Your task to perform on an android device: snooze an email in the gmail app Image 0: 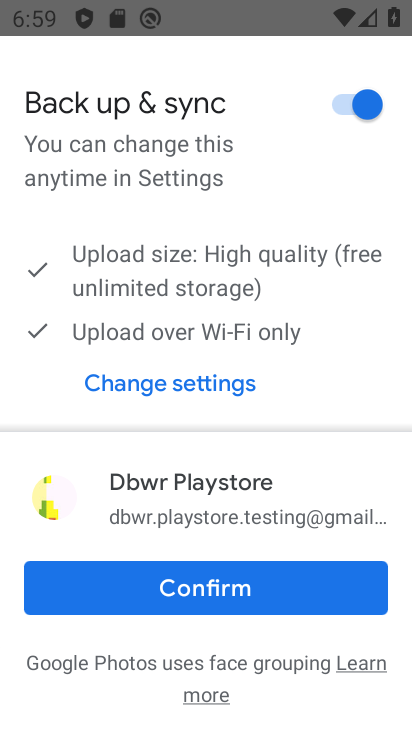
Step 0: press home button
Your task to perform on an android device: snooze an email in the gmail app Image 1: 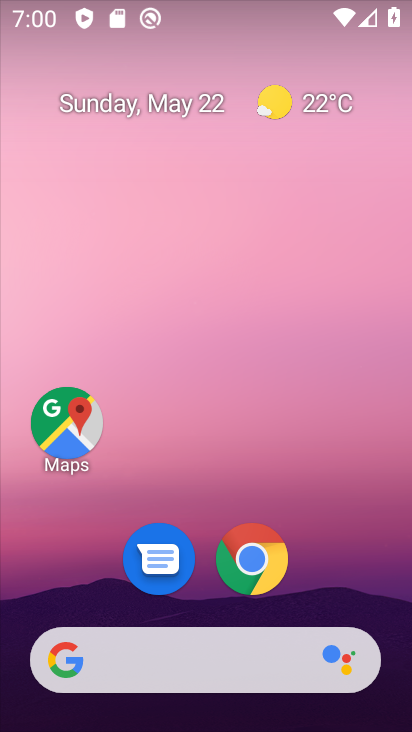
Step 1: drag from (283, 708) to (191, 112)
Your task to perform on an android device: snooze an email in the gmail app Image 2: 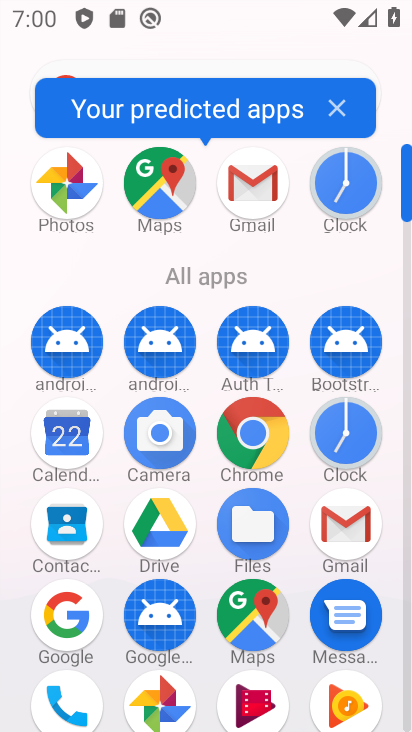
Step 2: click (241, 215)
Your task to perform on an android device: snooze an email in the gmail app Image 3: 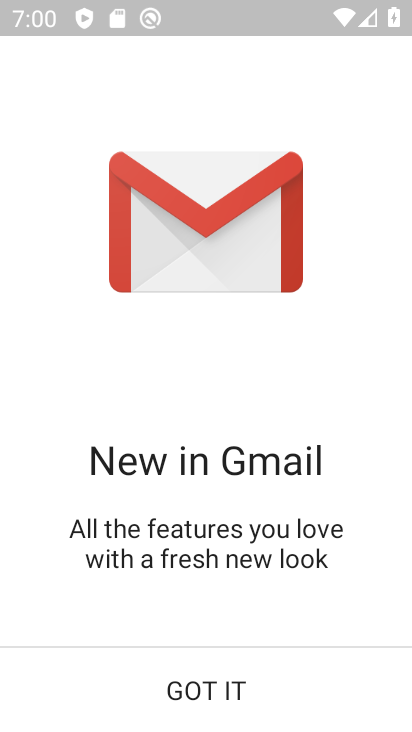
Step 3: click (183, 690)
Your task to perform on an android device: snooze an email in the gmail app Image 4: 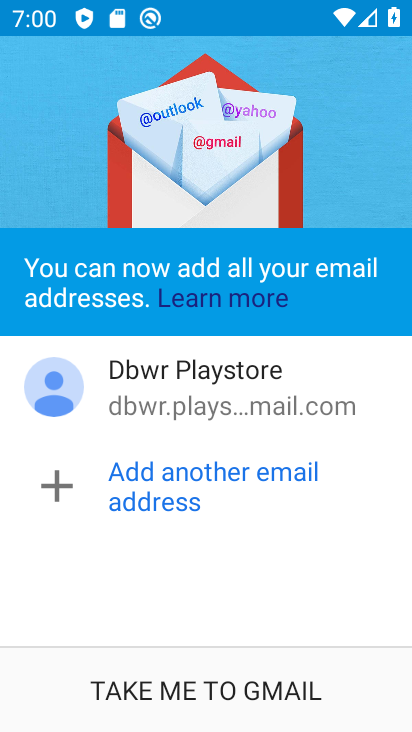
Step 4: click (239, 669)
Your task to perform on an android device: snooze an email in the gmail app Image 5: 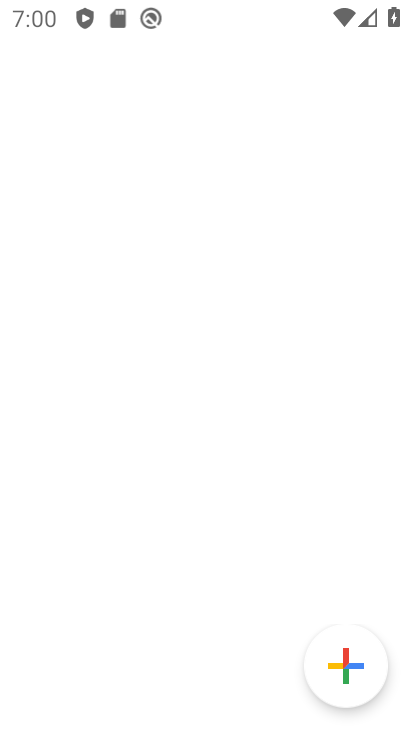
Step 5: click (287, 671)
Your task to perform on an android device: snooze an email in the gmail app Image 6: 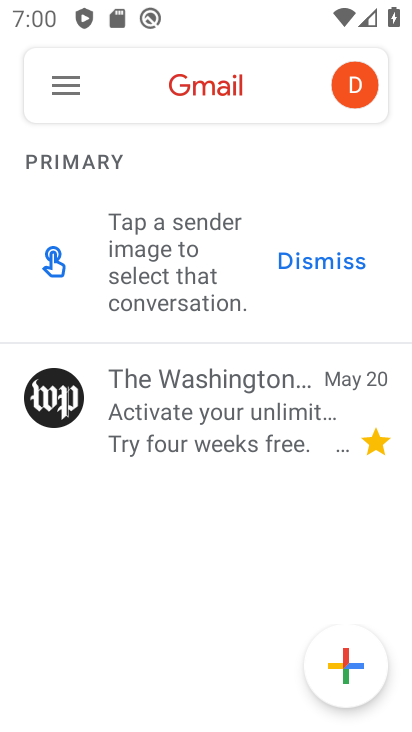
Step 6: click (54, 99)
Your task to perform on an android device: snooze an email in the gmail app Image 7: 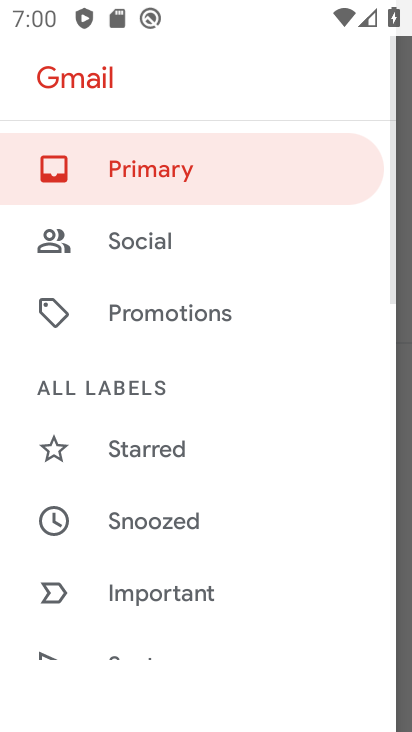
Step 7: click (175, 516)
Your task to perform on an android device: snooze an email in the gmail app Image 8: 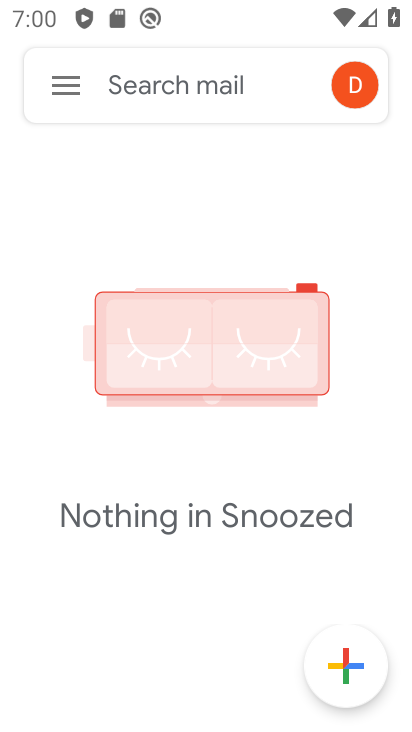
Step 8: task complete